Your task to perform on an android device: star an email in the gmail app Image 0: 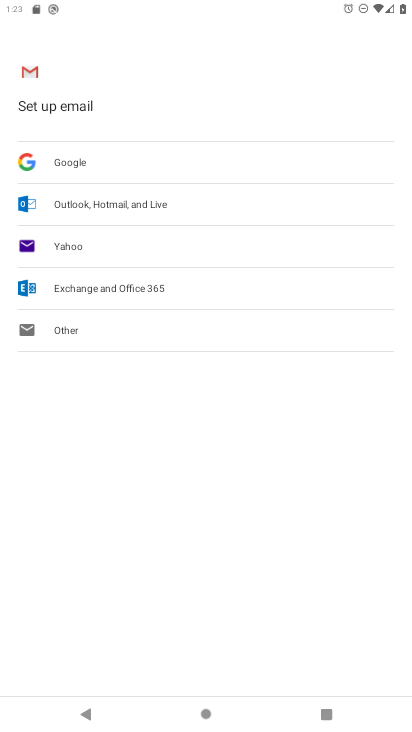
Step 0: press home button
Your task to perform on an android device: star an email in the gmail app Image 1: 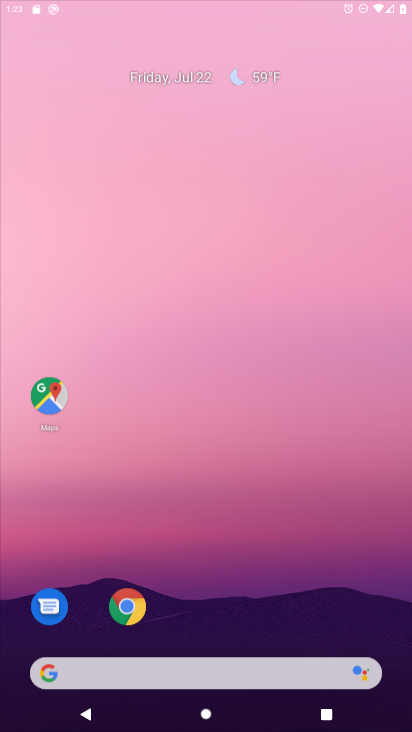
Step 1: drag from (401, 673) to (206, 94)
Your task to perform on an android device: star an email in the gmail app Image 2: 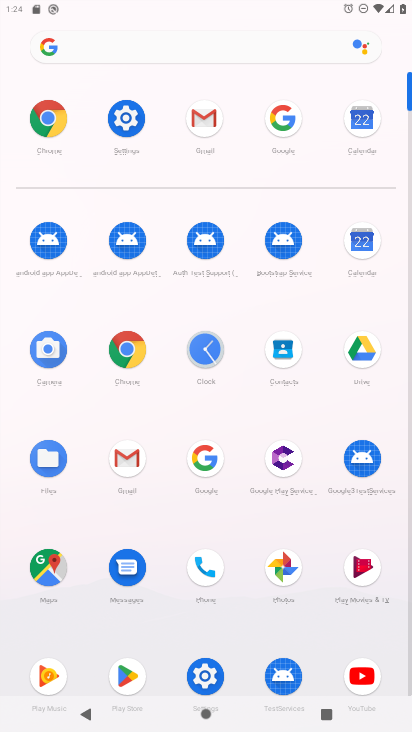
Step 2: click (129, 458)
Your task to perform on an android device: star an email in the gmail app Image 3: 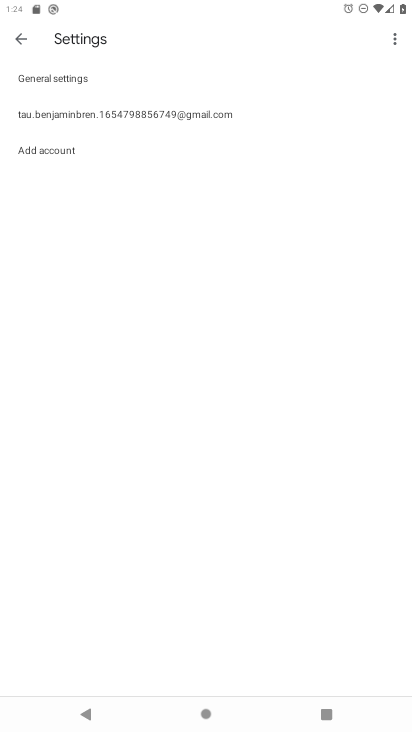
Step 3: press back button
Your task to perform on an android device: star an email in the gmail app Image 4: 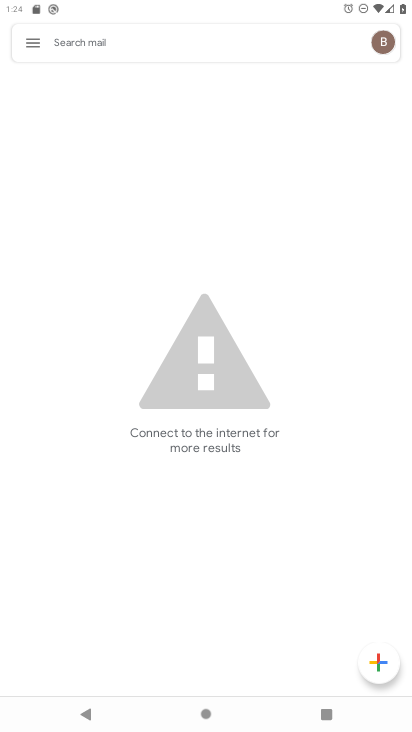
Step 4: click (20, 38)
Your task to perform on an android device: star an email in the gmail app Image 5: 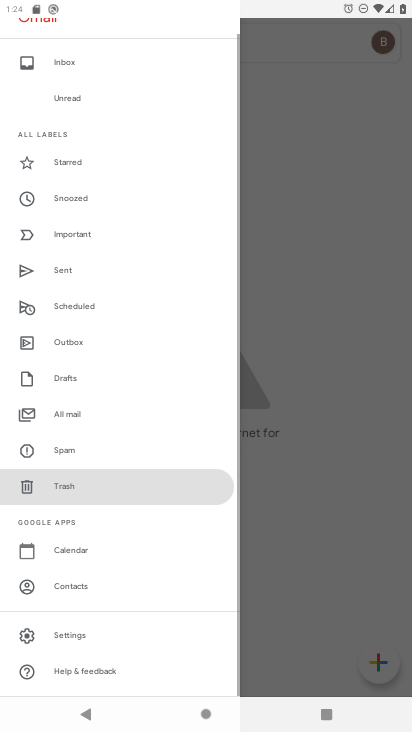
Step 5: click (63, 71)
Your task to perform on an android device: star an email in the gmail app Image 6: 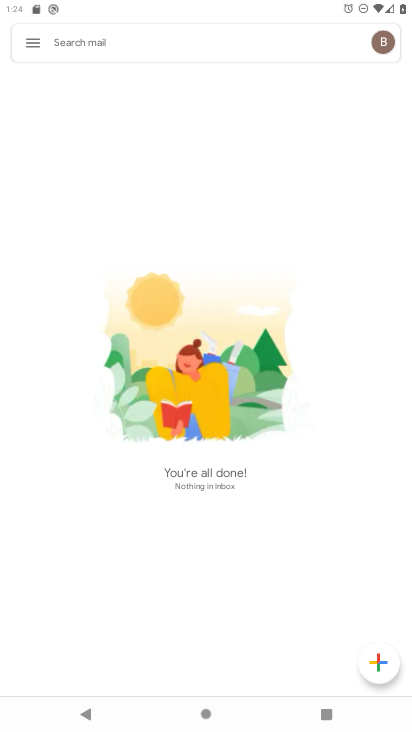
Step 6: task complete